Your task to perform on an android device: Look up the best rated coffee table on Ikea Image 0: 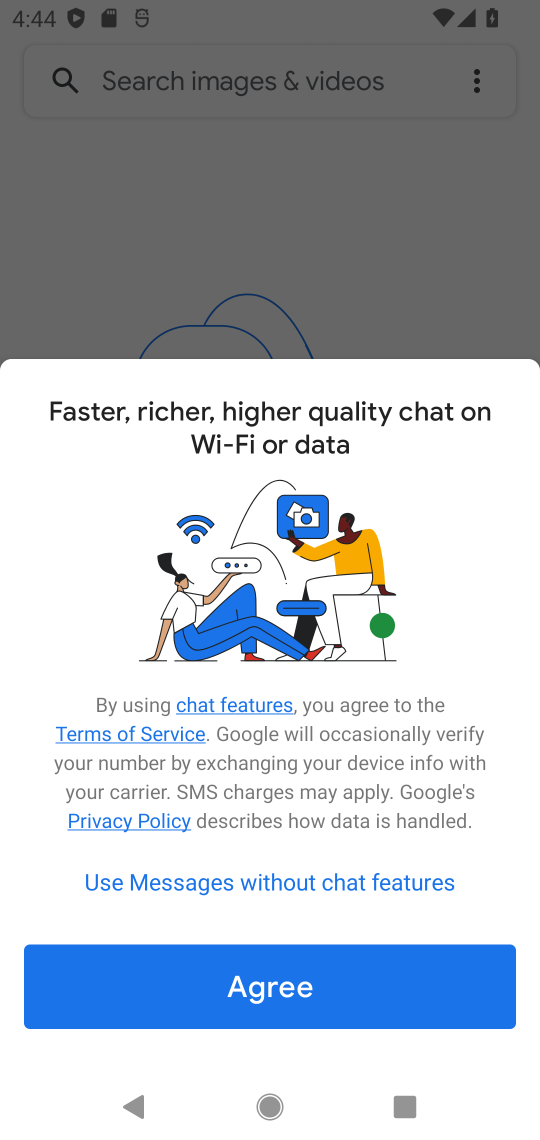
Step 0: press home button
Your task to perform on an android device: Look up the best rated coffee table on Ikea Image 1: 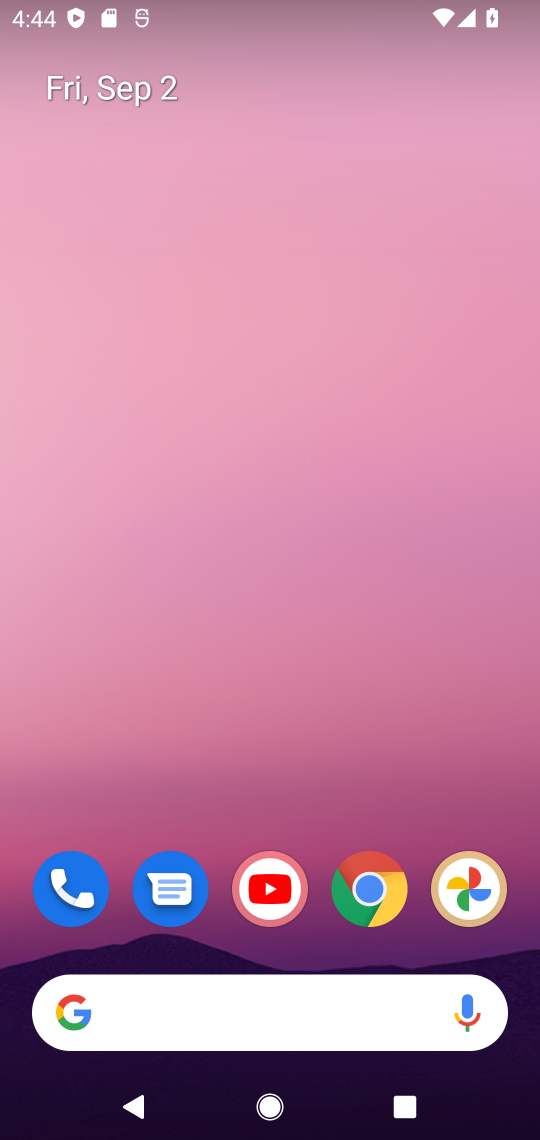
Step 1: click (356, 890)
Your task to perform on an android device: Look up the best rated coffee table on Ikea Image 2: 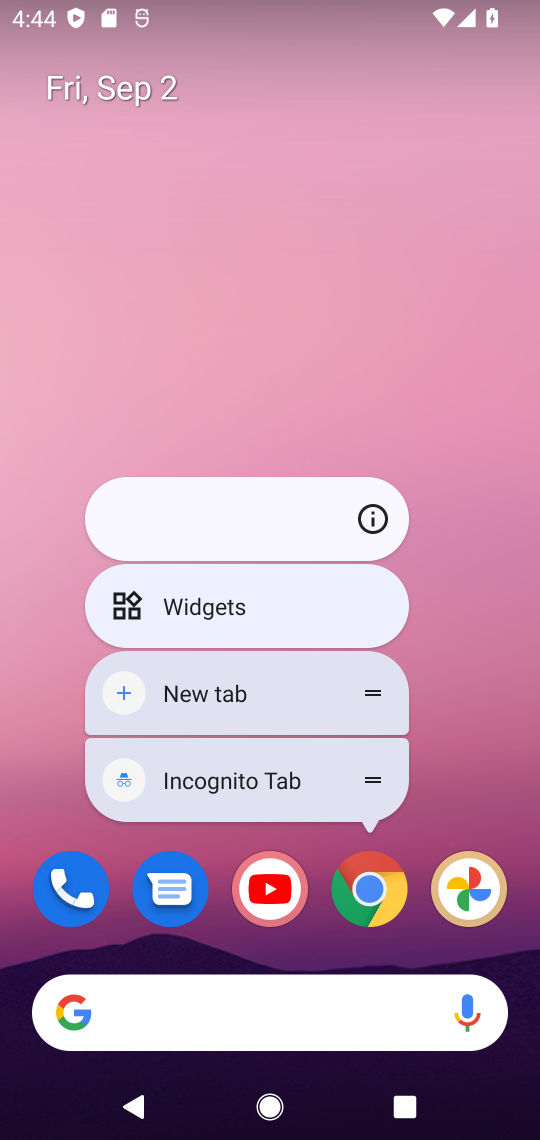
Step 2: click (386, 886)
Your task to perform on an android device: Look up the best rated coffee table on Ikea Image 3: 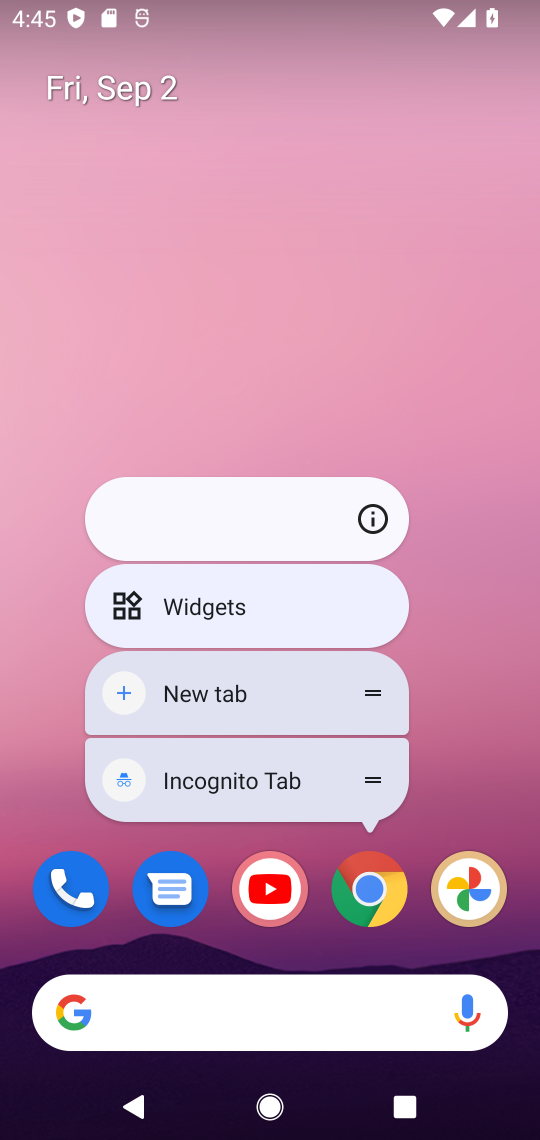
Step 3: click (386, 886)
Your task to perform on an android device: Look up the best rated coffee table on Ikea Image 4: 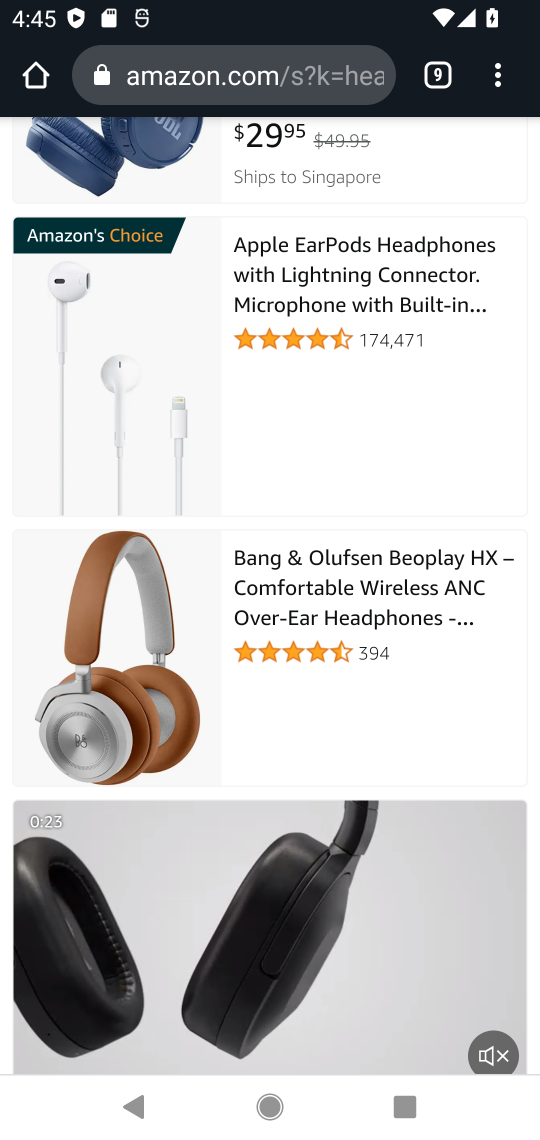
Step 4: click (445, 90)
Your task to perform on an android device: Look up the best rated coffee table on Ikea Image 5: 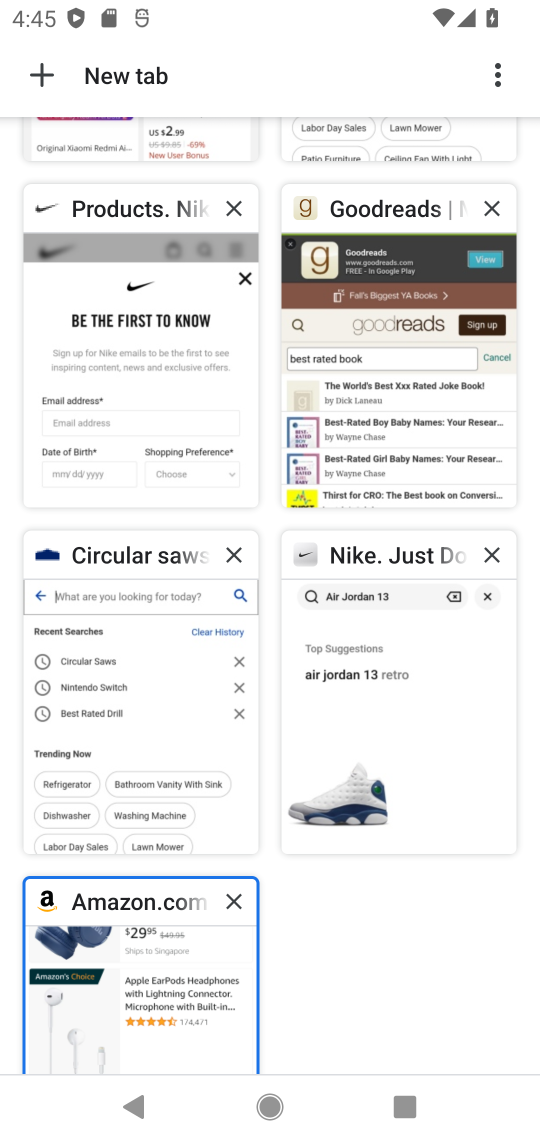
Step 5: click (40, 64)
Your task to perform on an android device: Look up the best rated coffee table on Ikea Image 6: 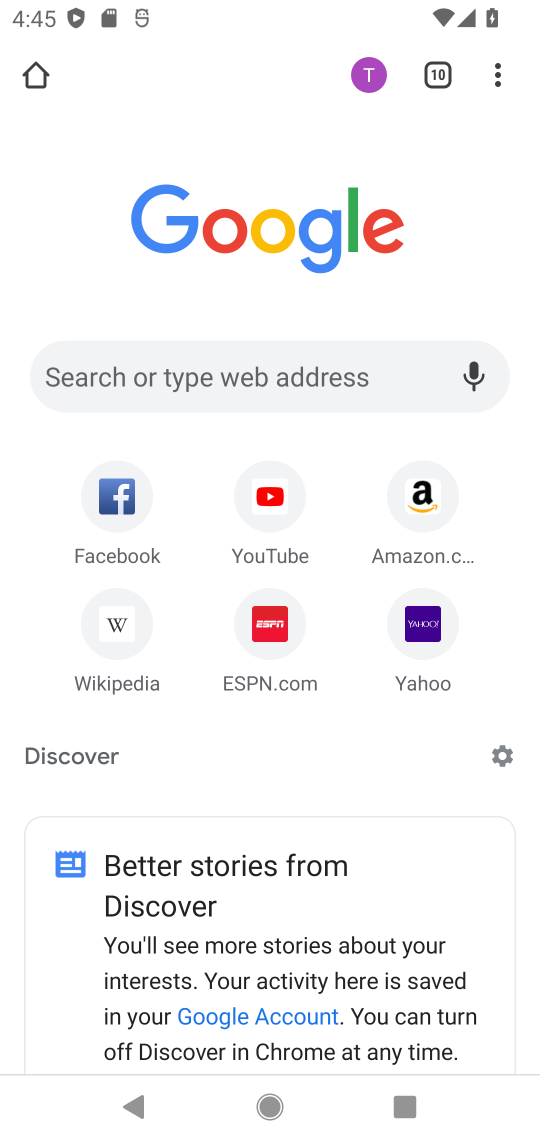
Step 6: type "Ikea"
Your task to perform on an android device: Look up the best rated coffee table on Ikea Image 7: 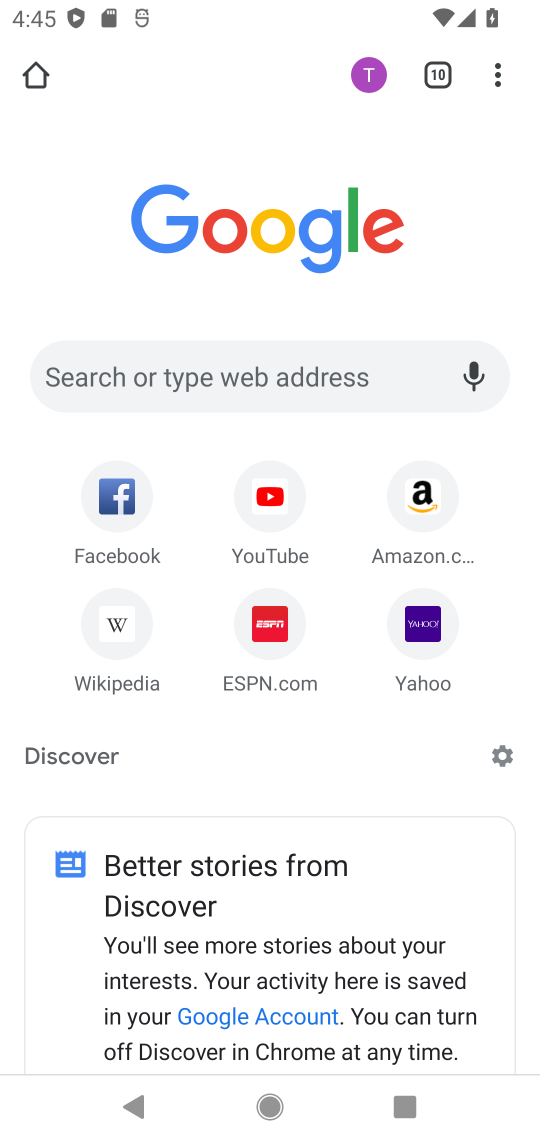
Step 7: type ""
Your task to perform on an android device: Look up the best rated coffee table on Ikea Image 8: 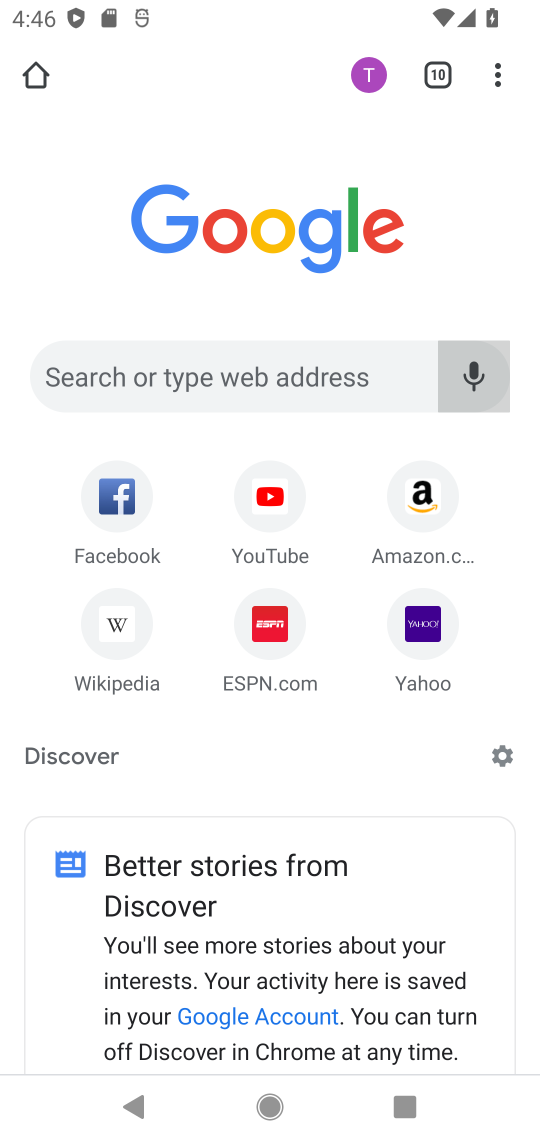
Step 8: click (251, 387)
Your task to perform on an android device: Look up the best rated coffee table on Ikea Image 9: 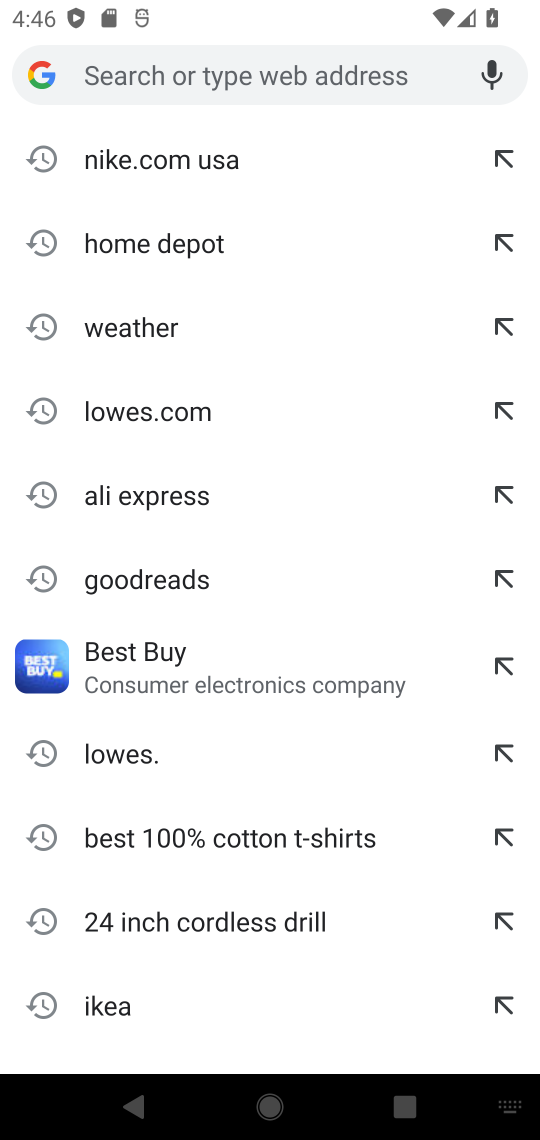
Step 9: type "Ikea"
Your task to perform on an android device: Look up the best rated coffee table on Ikea Image 10: 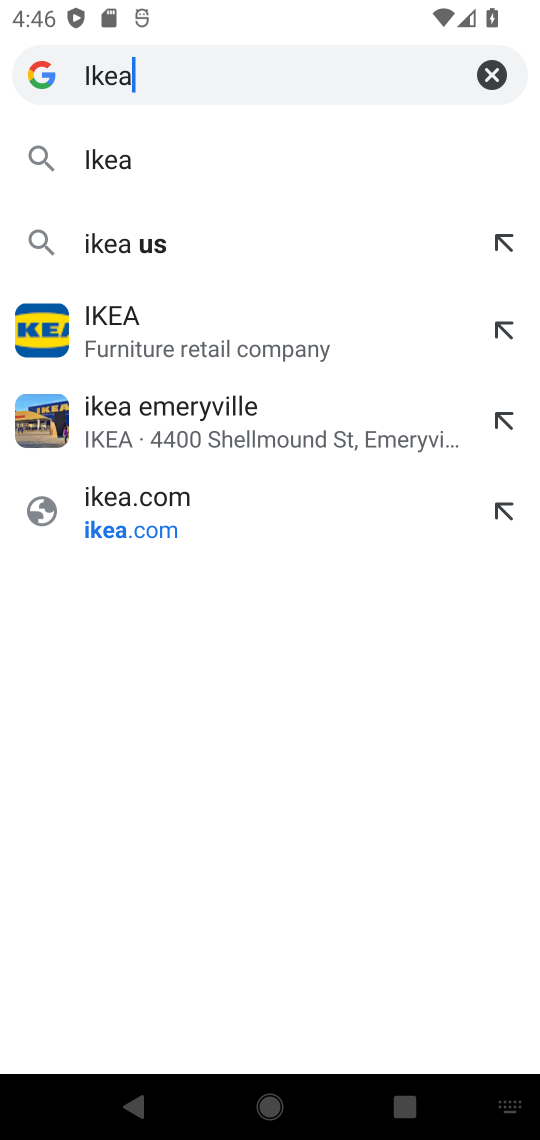
Step 10: click (117, 167)
Your task to perform on an android device: Look up the best rated coffee table on Ikea Image 11: 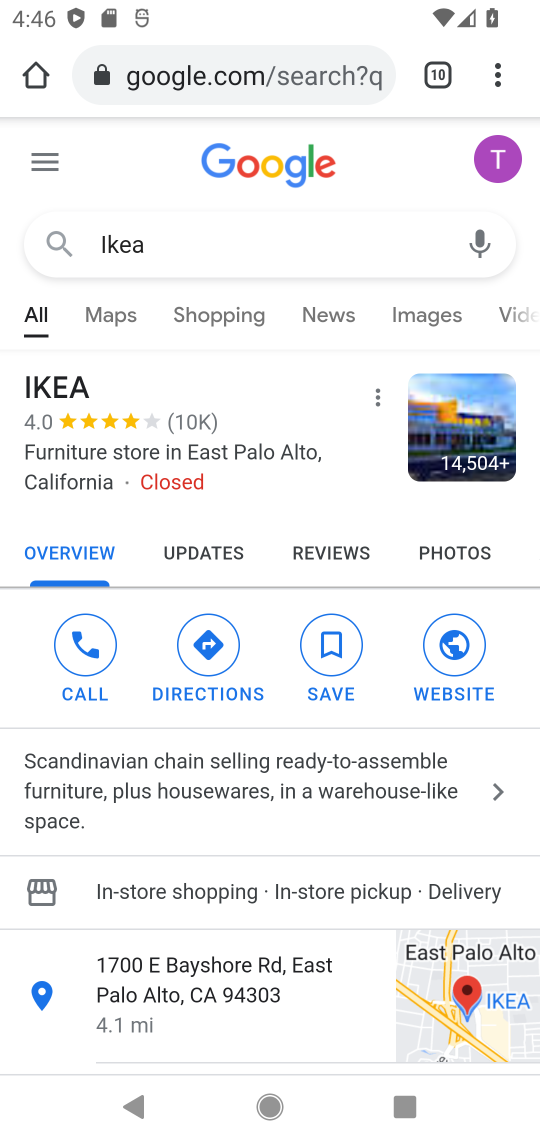
Step 11: drag from (218, 877) to (269, 389)
Your task to perform on an android device: Look up the best rated coffee table on Ikea Image 12: 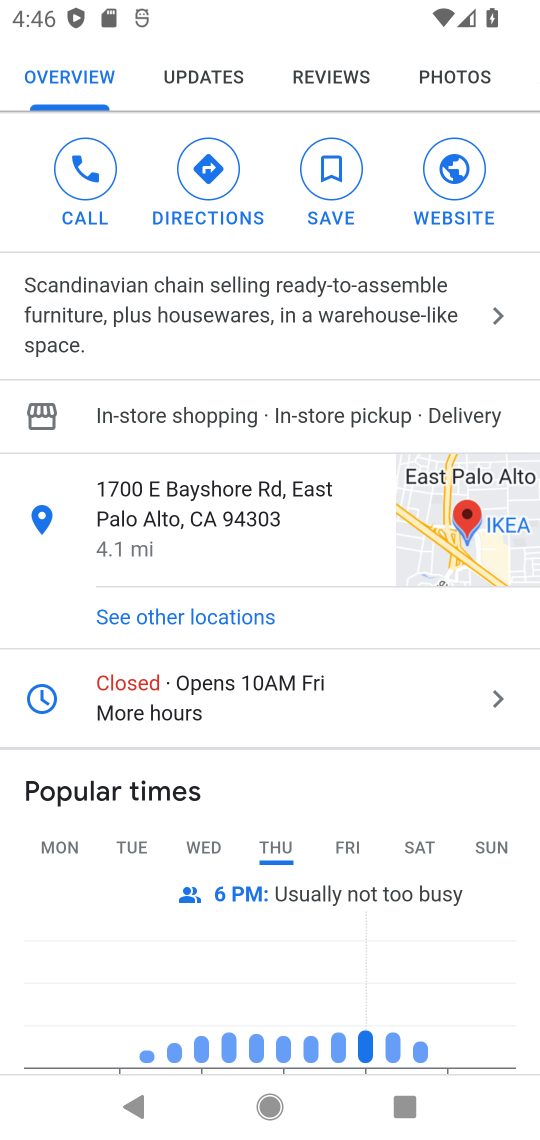
Step 12: drag from (333, 905) to (304, 394)
Your task to perform on an android device: Look up the best rated coffee table on Ikea Image 13: 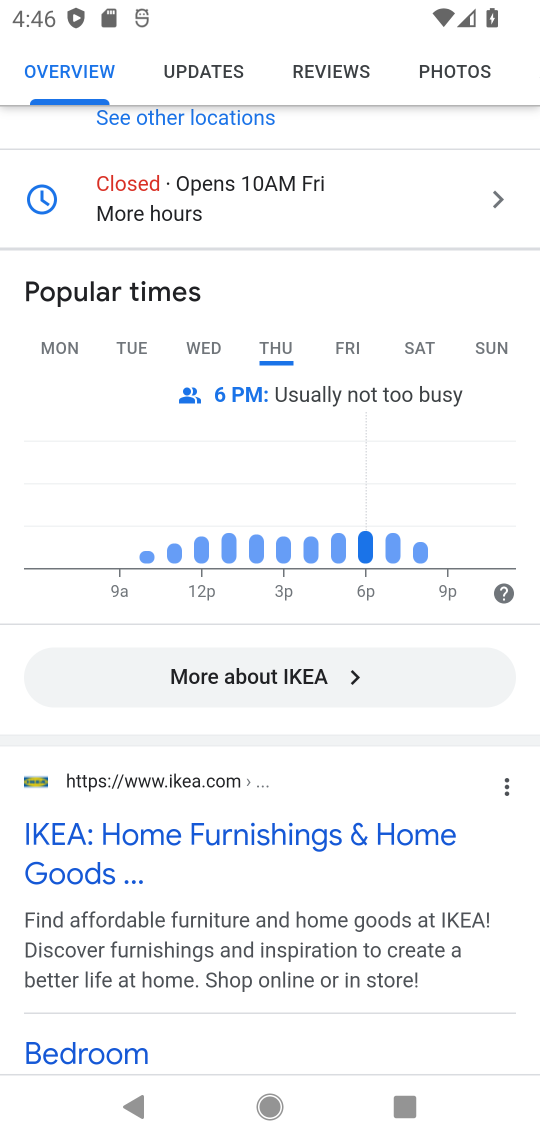
Step 13: click (247, 832)
Your task to perform on an android device: Look up the best rated coffee table on Ikea Image 14: 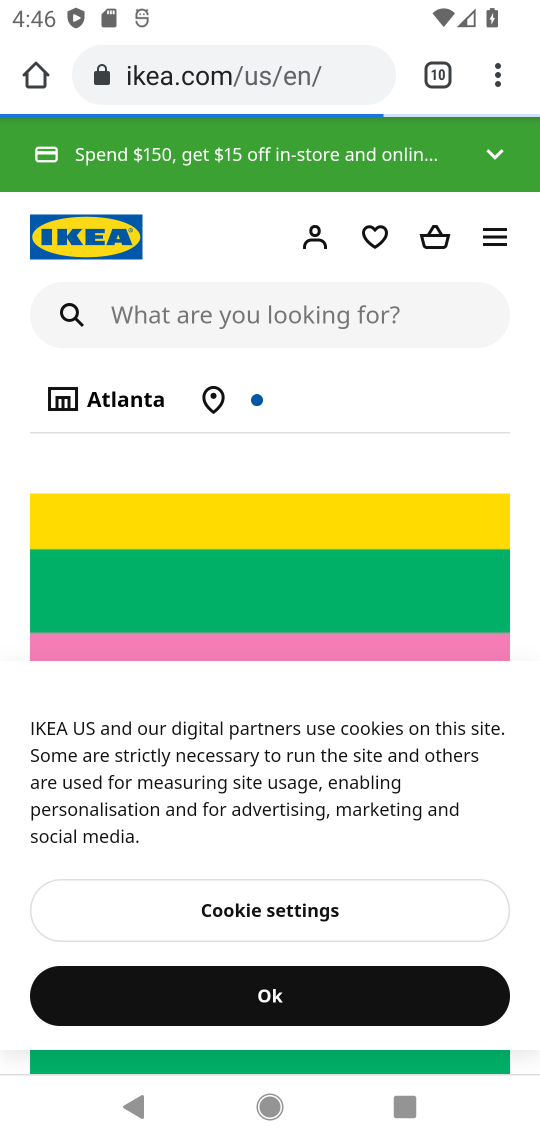
Step 14: click (289, 326)
Your task to perform on an android device: Look up the best rated coffee table on Ikea Image 15: 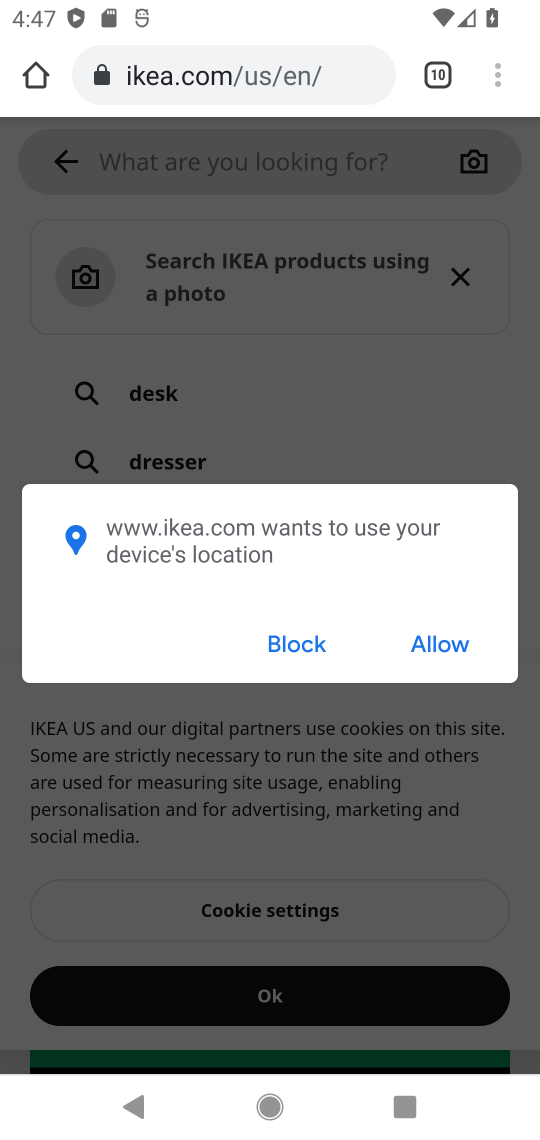
Step 15: click (464, 660)
Your task to perform on an android device: Look up the best rated coffee table on Ikea Image 16: 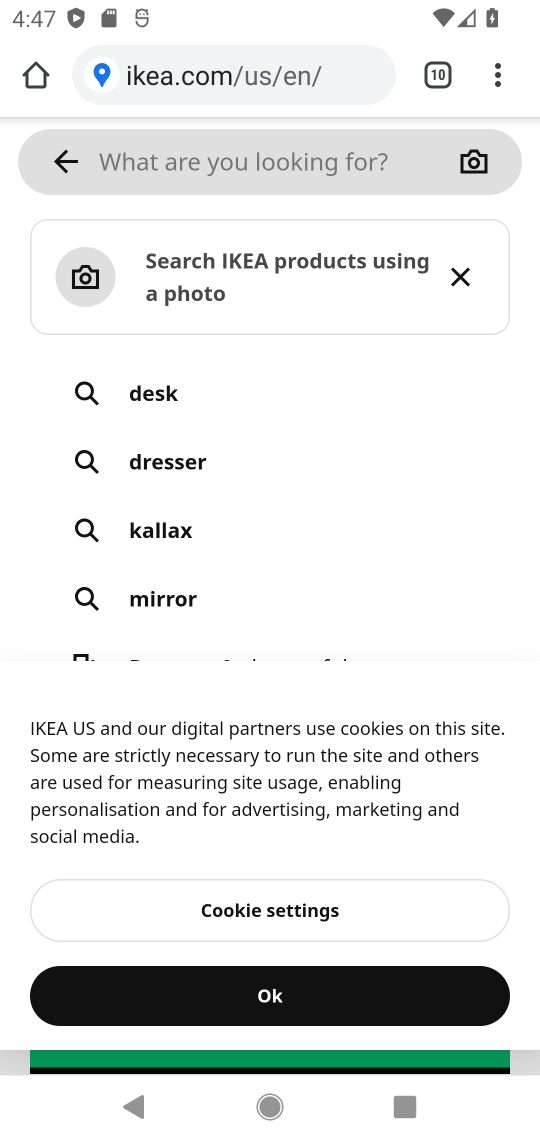
Step 16: click (179, 169)
Your task to perform on an android device: Look up the best rated coffee table on Ikea Image 17: 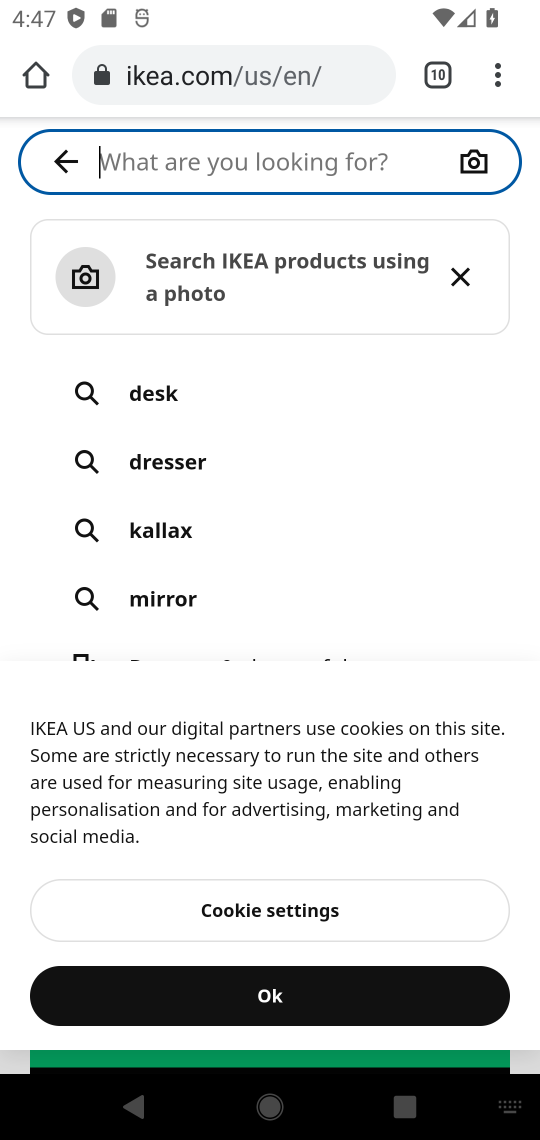
Step 17: type "coffee table"
Your task to perform on an android device: Look up the best rated coffee table on Ikea Image 18: 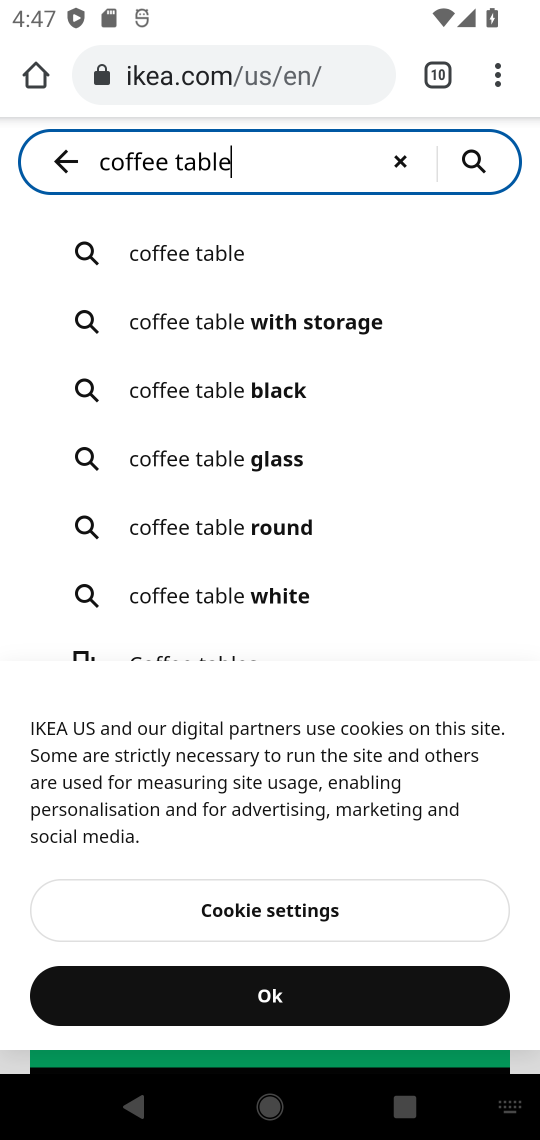
Step 18: click (209, 242)
Your task to perform on an android device: Look up the best rated coffee table on Ikea Image 19: 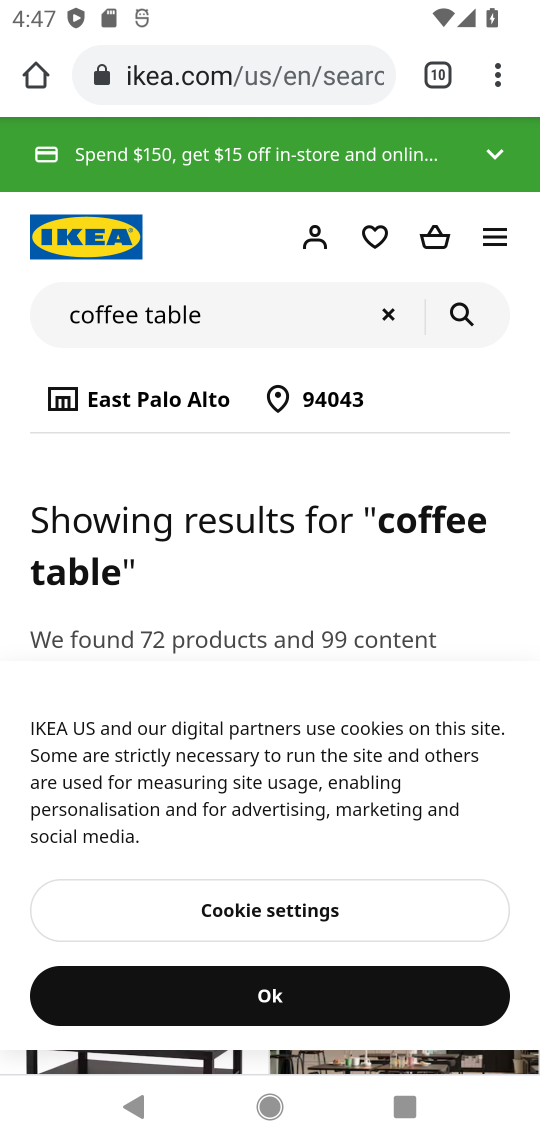
Step 19: drag from (334, 912) to (344, 483)
Your task to perform on an android device: Look up the best rated coffee table on Ikea Image 20: 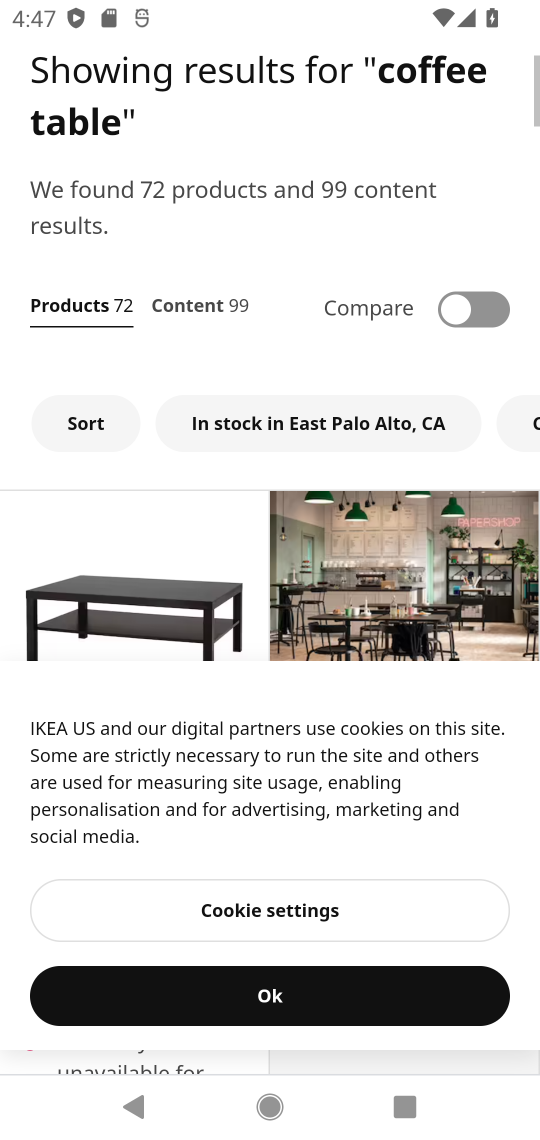
Step 20: click (372, 1009)
Your task to perform on an android device: Look up the best rated coffee table on Ikea Image 21: 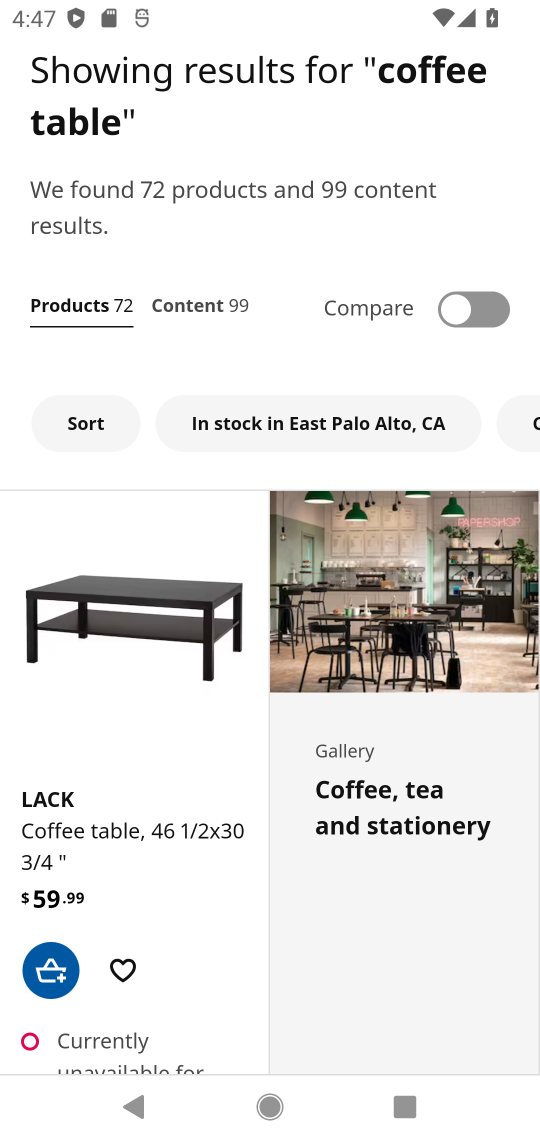
Step 21: drag from (333, 627) to (309, 403)
Your task to perform on an android device: Look up the best rated coffee table on Ikea Image 22: 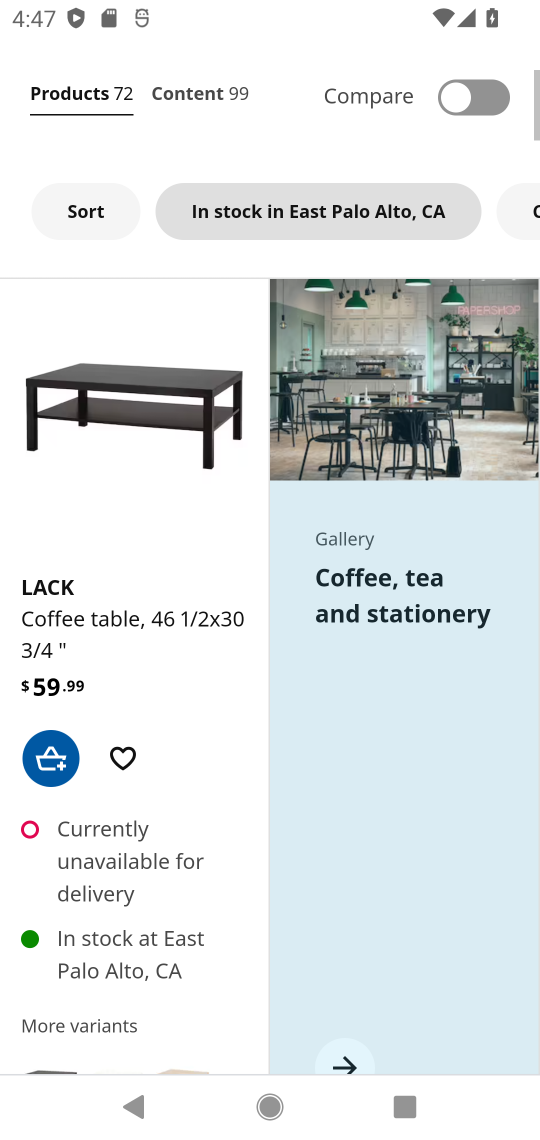
Step 22: drag from (337, 895) to (391, 501)
Your task to perform on an android device: Look up the best rated coffee table on Ikea Image 23: 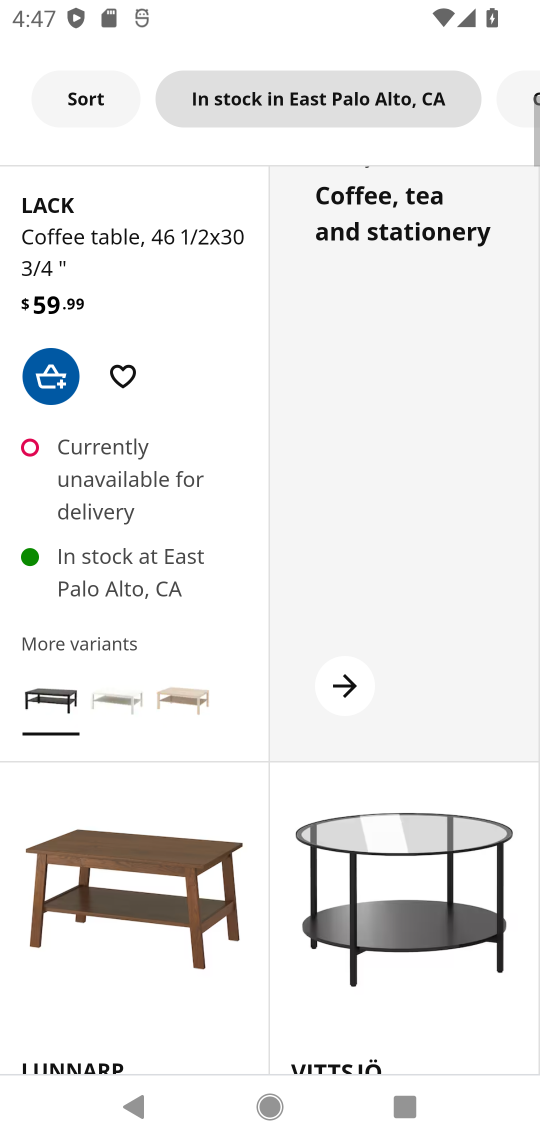
Step 23: drag from (344, 826) to (392, 462)
Your task to perform on an android device: Look up the best rated coffee table on Ikea Image 24: 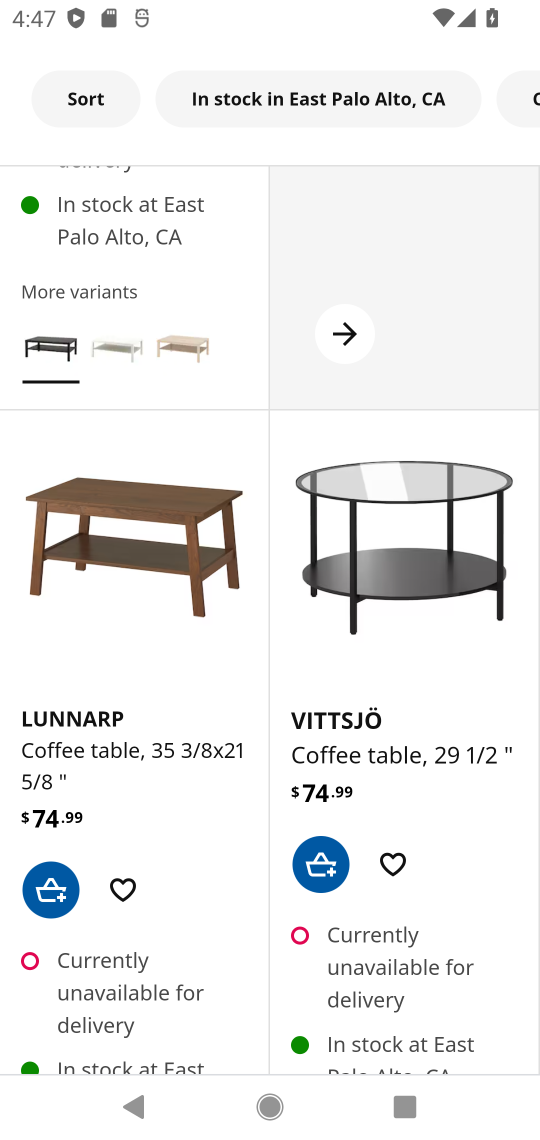
Step 24: click (392, 572)
Your task to perform on an android device: Look up the best rated coffee table on Ikea Image 25: 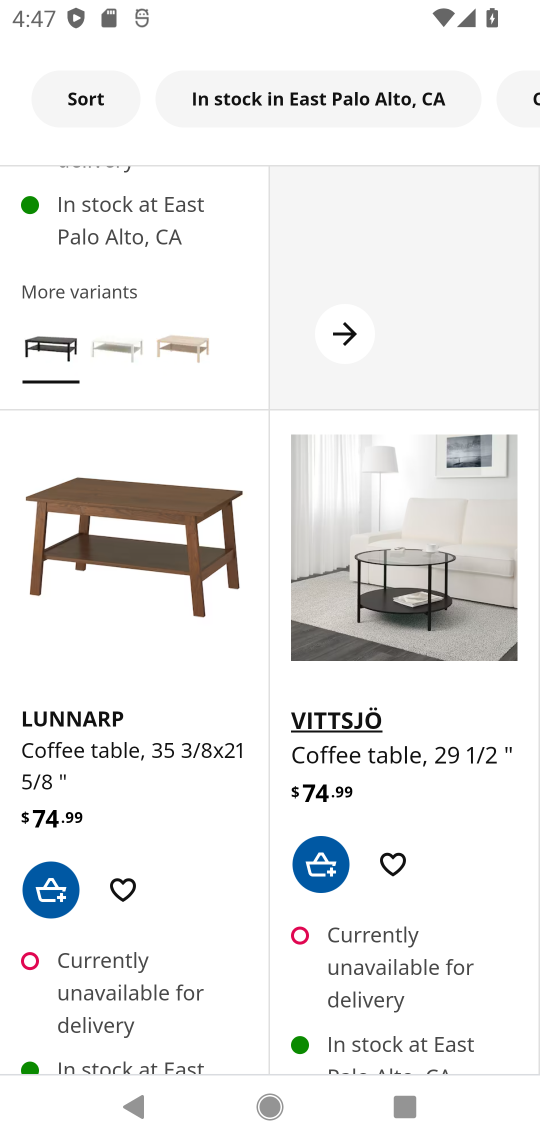
Step 25: task complete